Your task to perform on an android device: turn notification dots off Image 0: 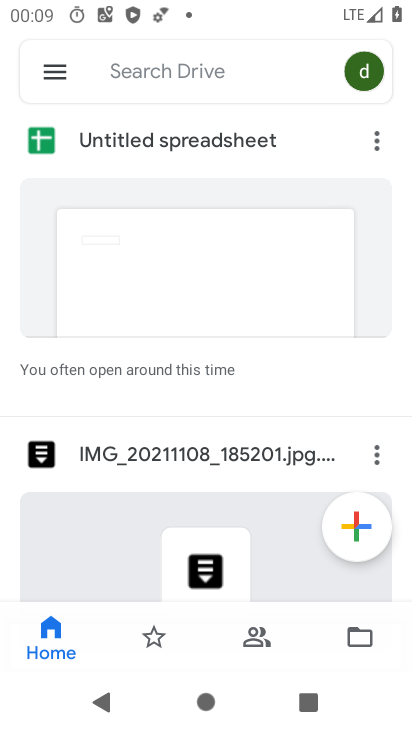
Step 0: drag from (208, 498) to (265, 81)
Your task to perform on an android device: turn notification dots off Image 1: 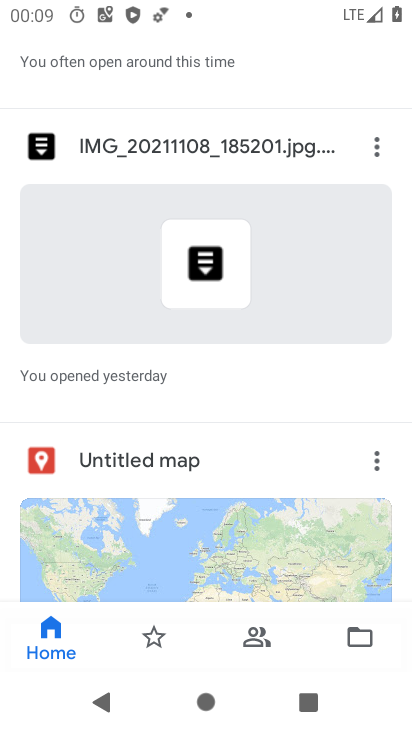
Step 1: press home button
Your task to perform on an android device: turn notification dots off Image 2: 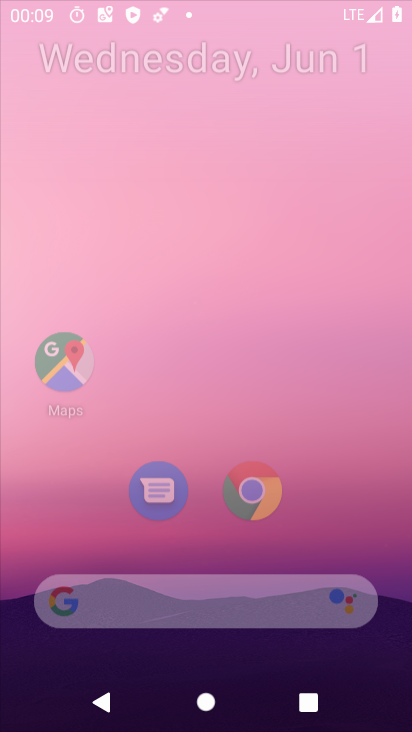
Step 2: drag from (283, 421) to (304, 1)
Your task to perform on an android device: turn notification dots off Image 3: 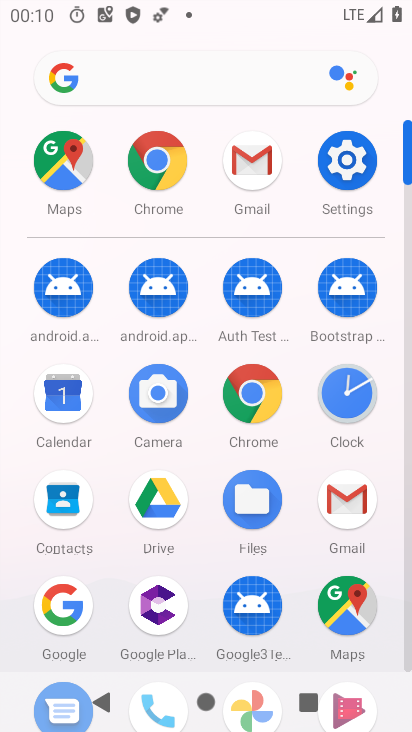
Step 3: click (356, 175)
Your task to perform on an android device: turn notification dots off Image 4: 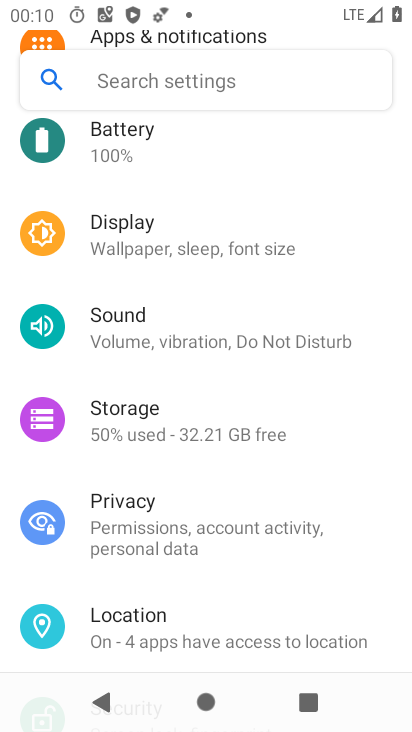
Step 4: drag from (191, 188) to (302, 704)
Your task to perform on an android device: turn notification dots off Image 5: 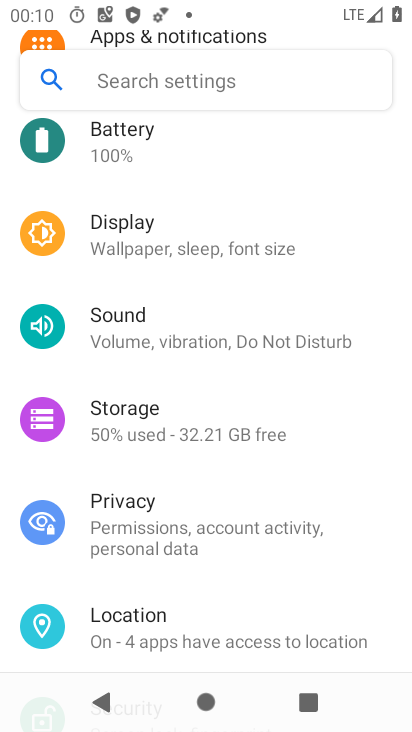
Step 5: drag from (232, 210) to (395, 344)
Your task to perform on an android device: turn notification dots off Image 6: 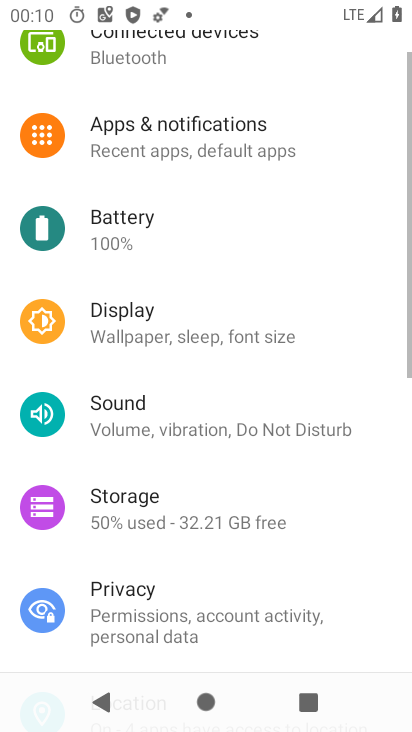
Step 6: click (144, 514)
Your task to perform on an android device: turn notification dots off Image 7: 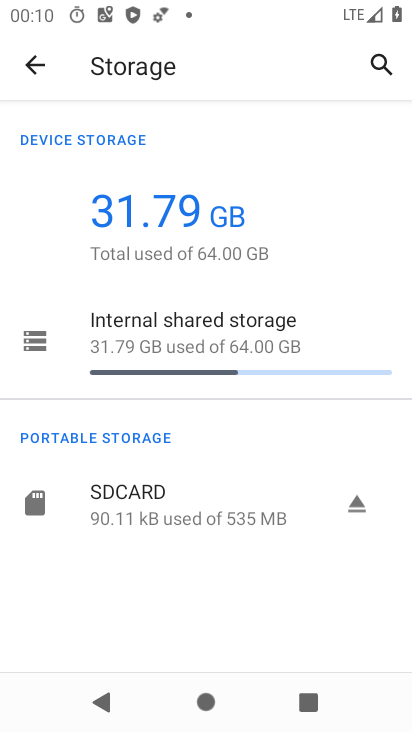
Step 7: click (29, 55)
Your task to perform on an android device: turn notification dots off Image 8: 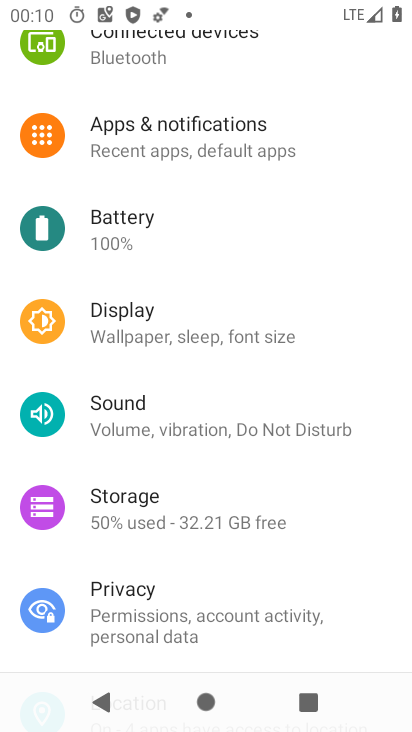
Step 8: click (234, 144)
Your task to perform on an android device: turn notification dots off Image 9: 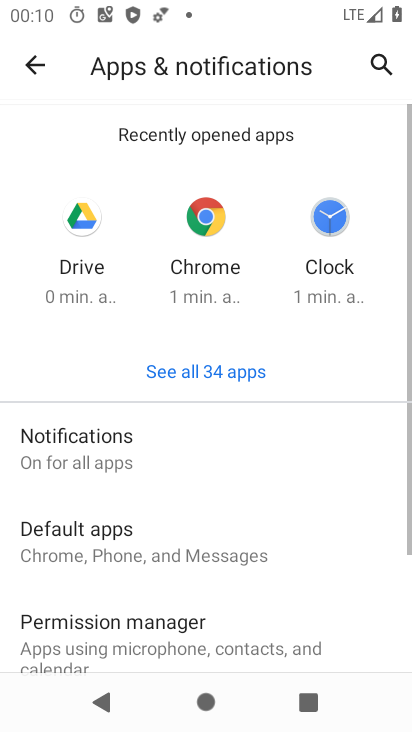
Step 9: click (166, 459)
Your task to perform on an android device: turn notification dots off Image 10: 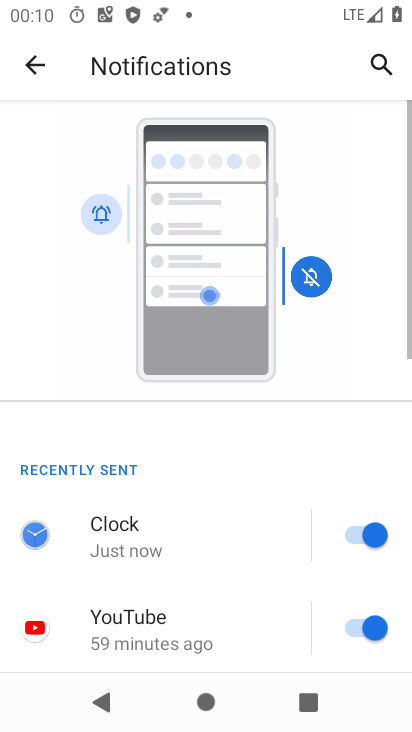
Step 10: drag from (220, 527) to (279, 28)
Your task to perform on an android device: turn notification dots off Image 11: 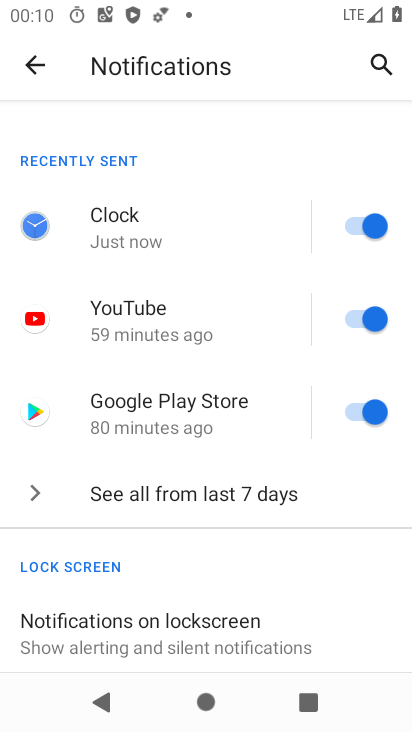
Step 11: drag from (221, 587) to (309, 60)
Your task to perform on an android device: turn notification dots off Image 12: 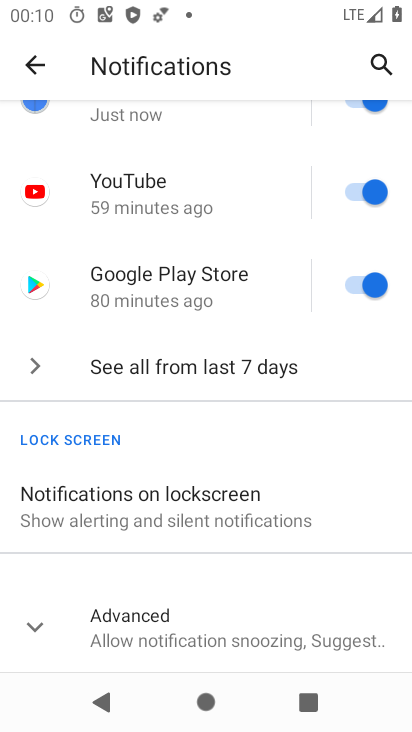
Step 12: click (178, 611)
Your task to perform on an android device: turn notification dots off Image 13: 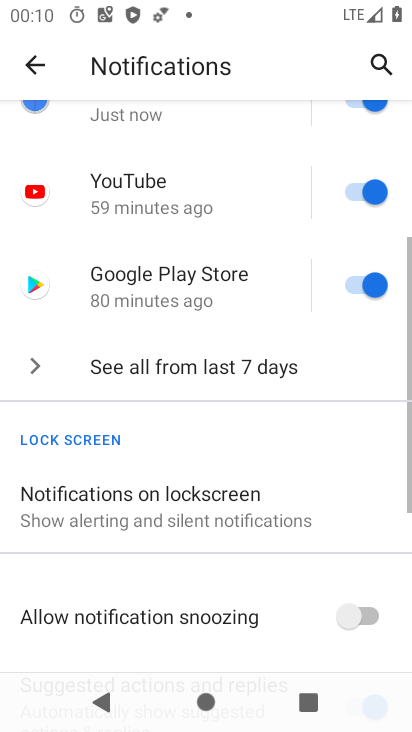
Step 13: task complete